Your task to perform on an android device: open a new tab in the chrome app Image 0: 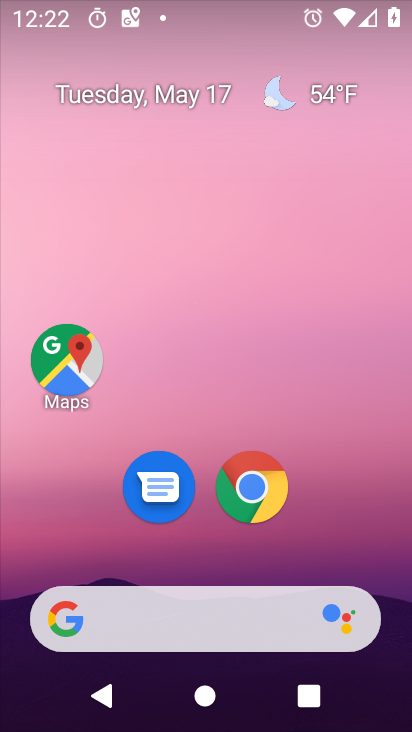
Step 0: click (247, 507)
Your task to perform on an android device: open a new tab in the chrome app Image 1: 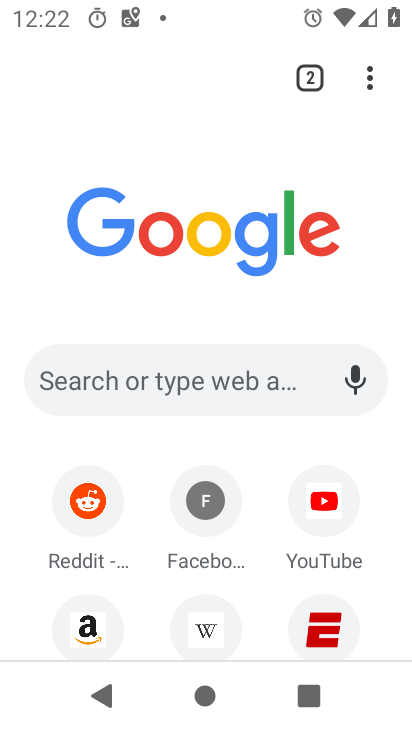
Step 1: task complete